Your task to perform on an android device: turn off sleep mode Image 0: 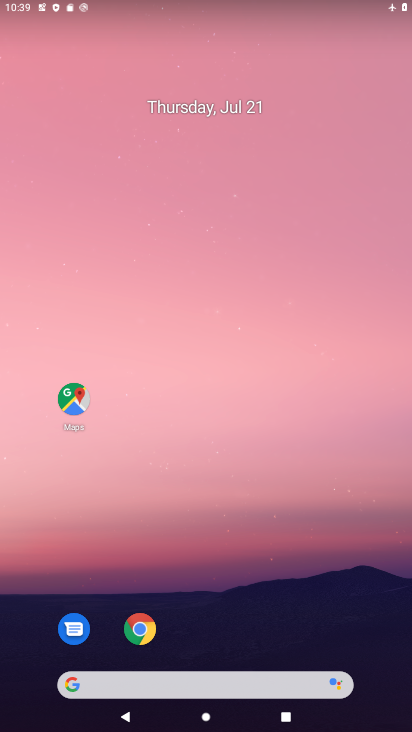
Step 0: press home button
Your task to perform on an android device: turn off sleep mode Image 1: 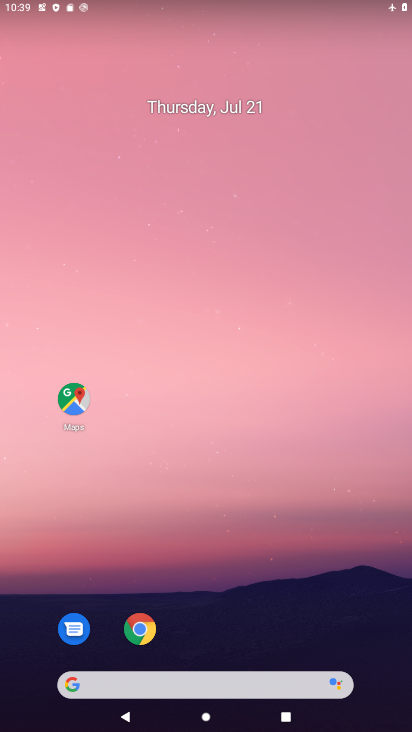
Step 1: drag from (253, 636) to (207, 41)
Your task to perform on an android device: turn off sleep mode Image 2: 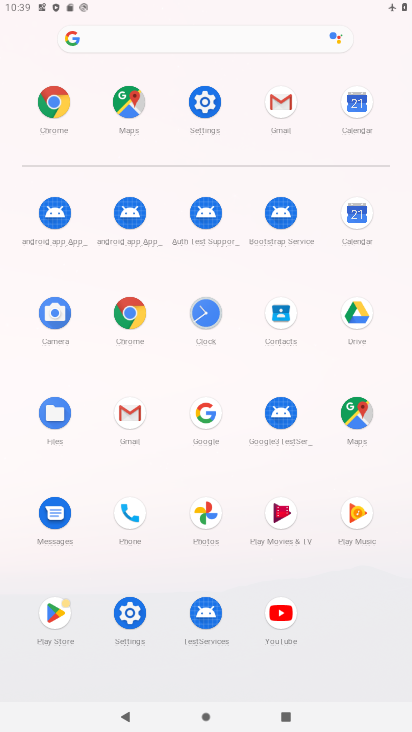
Step 2: click (207, 97)
Your task to perform on an android device: turn off sleep mode Image 3: 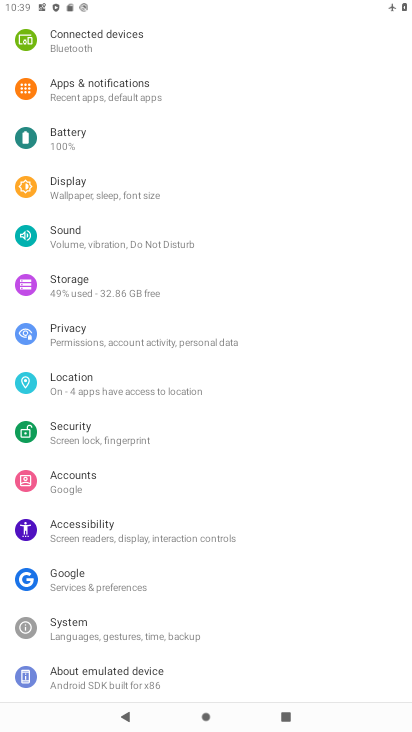
Step 3: click (70, 190)
Your task to perform on an android device: turn off sleep mode Image 4: 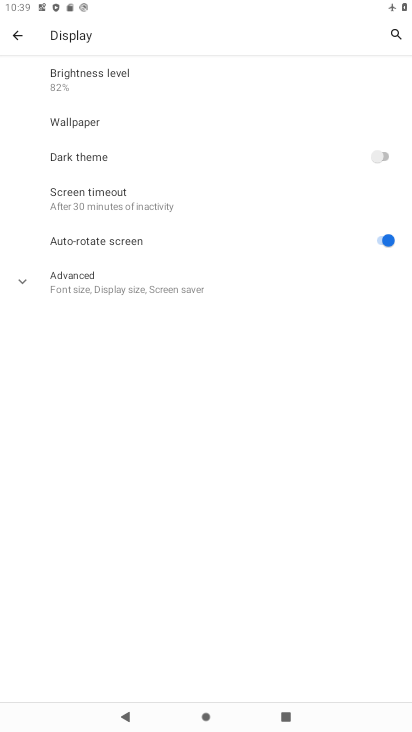
Step 4: task complete